Your task to perform on an android device: see tabs open on other devices in the chrome app Image 0: 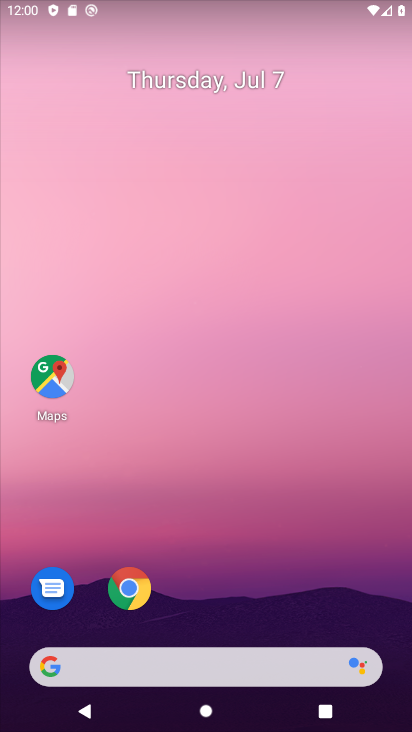
Step 0: drag from (224, 508) to (273, 50)
Your task to perform on an android device: see tabs open on other devices in the chrome app Image 1: 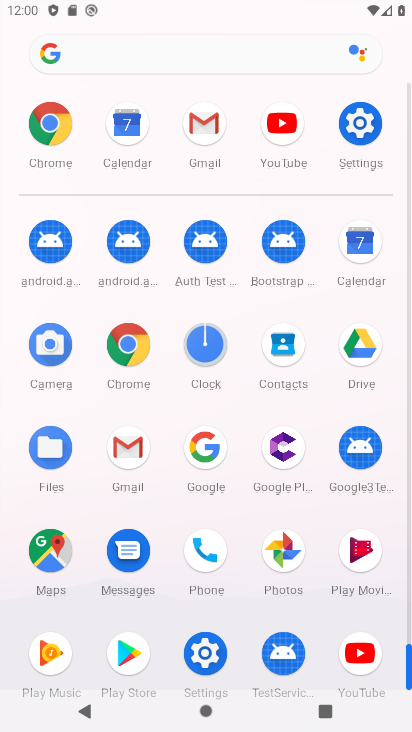
Step 1: click (127, 341)
Your task to perform on an android device: see tabs open on other devices in the chrome app Image 2: 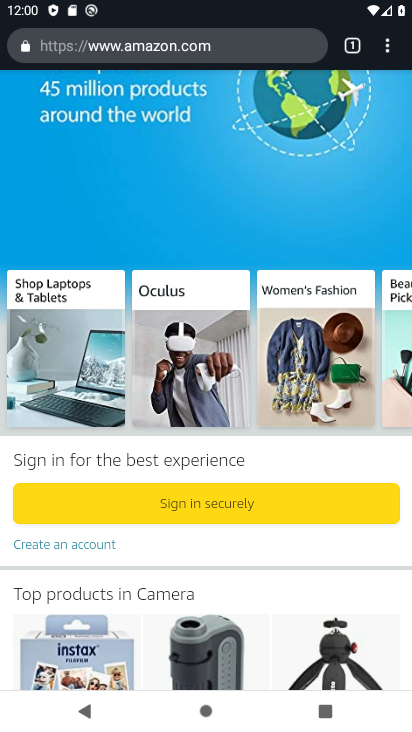
Step 2: drag from (266, 549) to (322, 274)
Your task to perform on an android device: see tabs open on other devices in the chrome app Image 3: 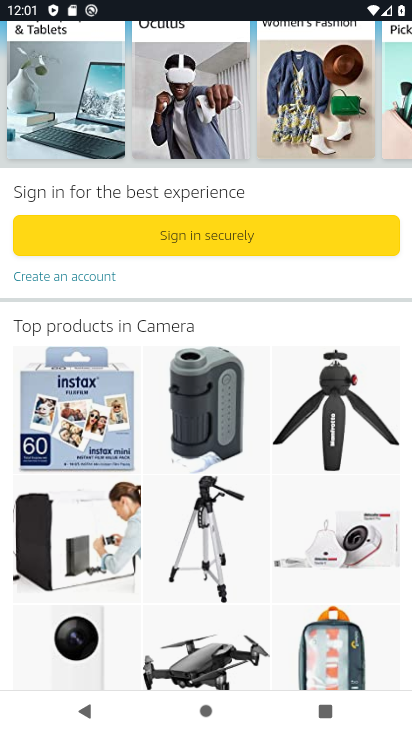
Step 3: drag from (241, 187) to (213, 729)
Your task to perform on an android device: see tabs open on other devices in the chrome app Image 4: 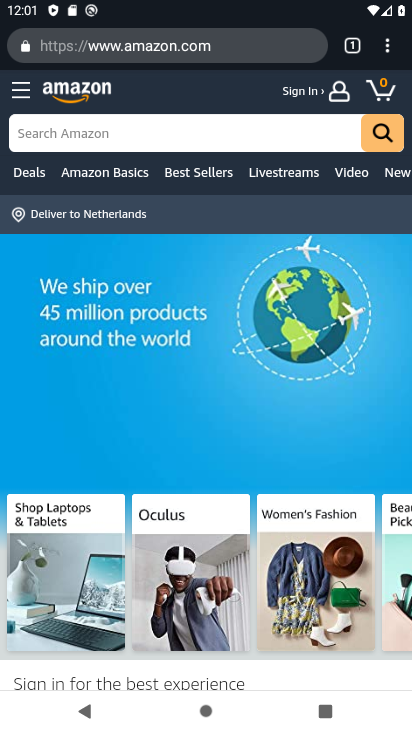
Step 4: click (384, 50)
Your task to perform on an android device: see tabs open on other devices in the chrome app Image 5: 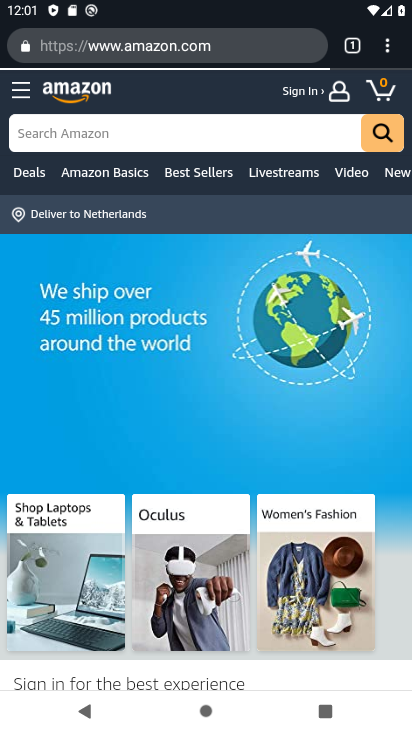
Step 5: click (383, 51)
Your task to perform on an android device: see tabs open on other devices in the chrome app Image 6: 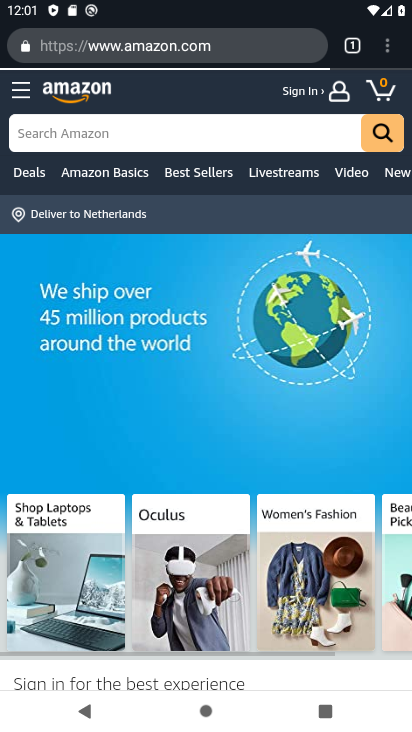
Step 6: drag from (383, 51) to (232, 214)
Your task to perform on an android device: see tabs open on other devices in the chrome app Image 7: 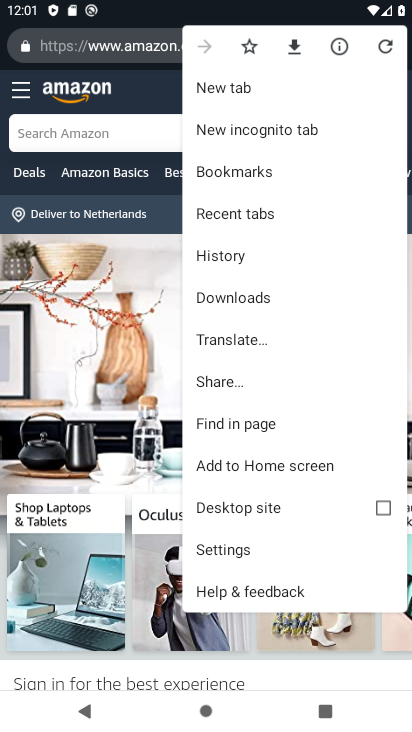
Step 7: click (232, 214)
Your task to perform on an android device: see tabs open on other devices in the chrome app Image 8: 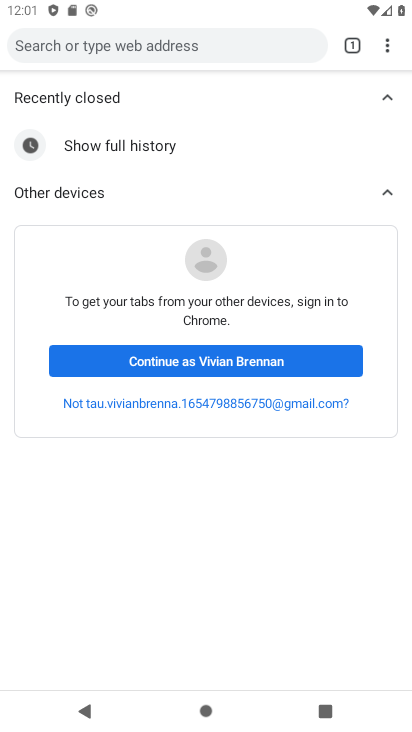
Step 8: task complete